Your task to perform on an android device: turn on bluetooth scan Image 0: 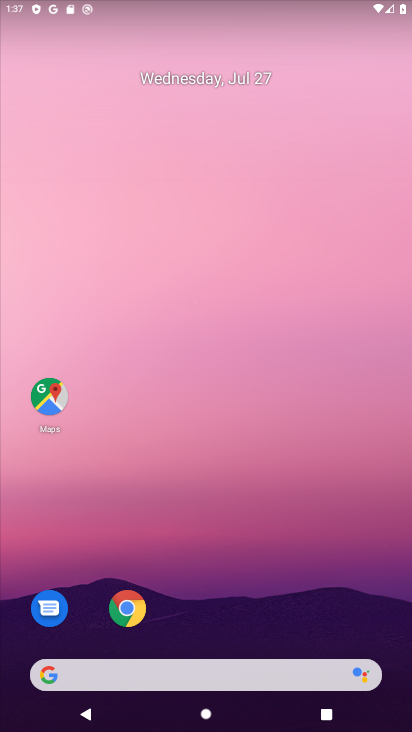
Step 0: drag from (28, 702) to (322, 166)
Your task to perform on an android device: turn on bluetooth scan Image 1: 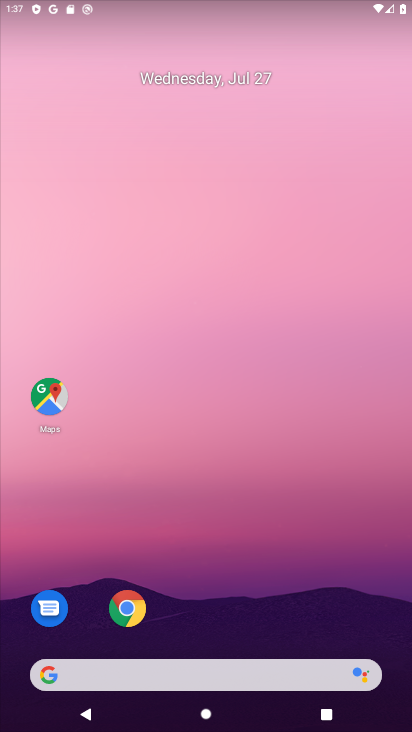
Step 1: drag from (34, 706) to (285, 102)
Your task to perform on an android device: turn on bluetooth scan Image 2: 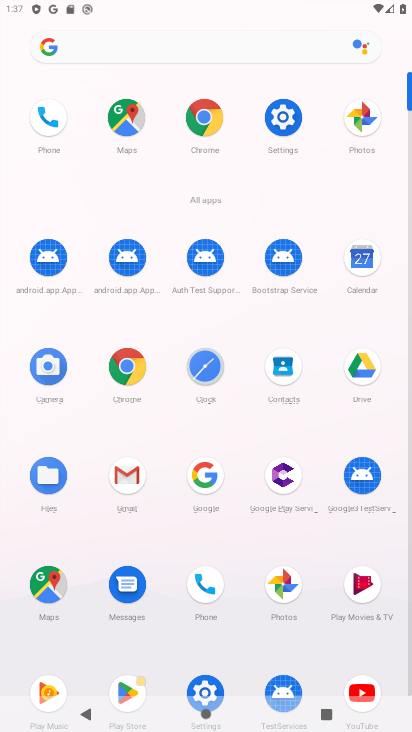
Step 2: click (211, 685)
Your task to perform on an android device: turn on bluetooth scan Image 3: 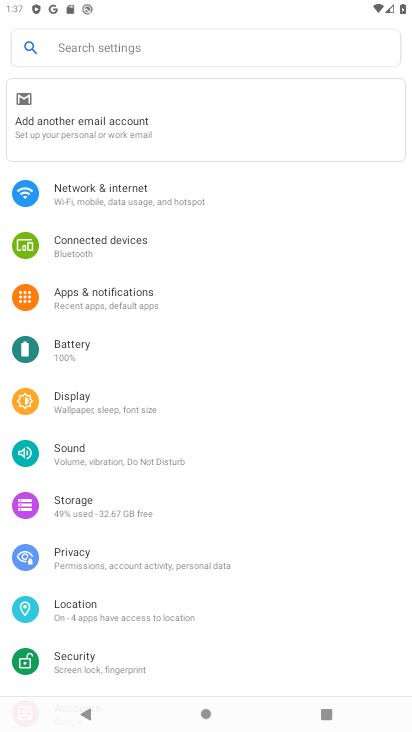
Step 3: click (103, 240)
Your task to perform on an android device: turn on bluetooth scan Image 4: 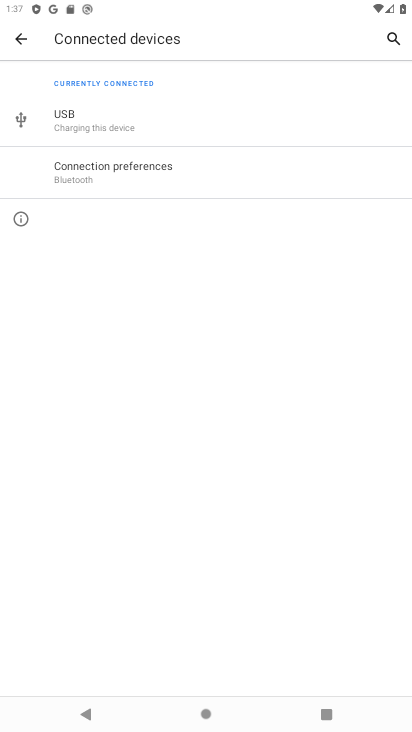
Step 4: click (112, 176)
Your task to perform on an android device: turn on bluetooth scan Image 5: 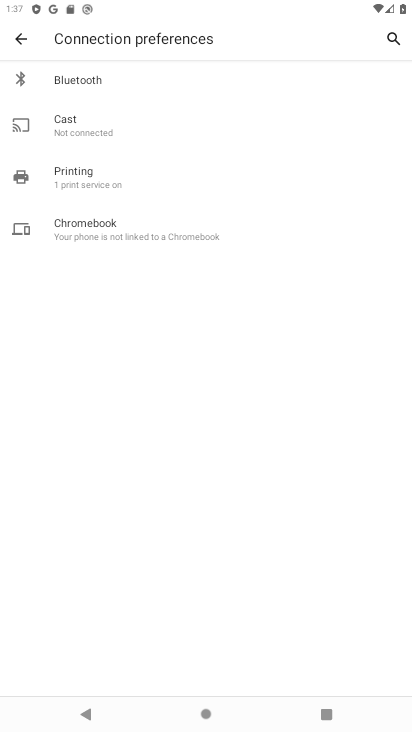
Step 5: click (98, 72)
Your task to perform on an android device: turn on bluetooth scan Image 6: 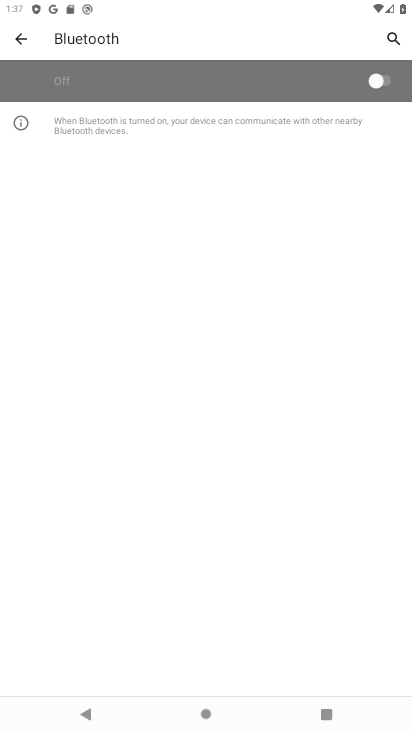
Step 6: task complete